Your task to perform on an android device: Open Google Maps and go to "Timeline" Image 0: 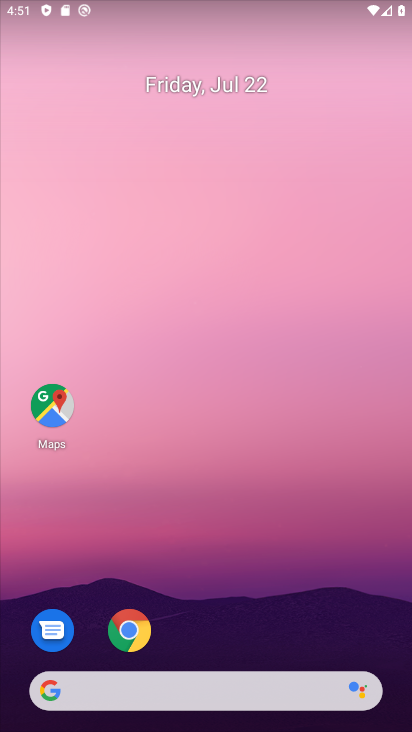
Step 0: click (171, 649)
Your task to perform on an android device: Open Google Maps and go to "Timeline" Image 1: 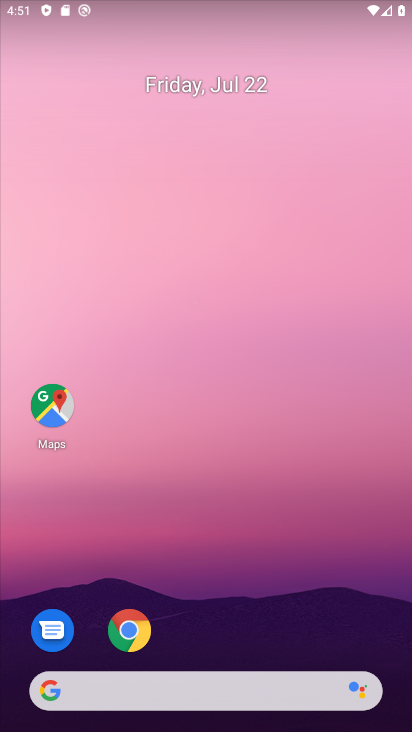
Step 1: click (51, 411)
Your task to perform on an android device: Open Google Maps and go to "Timeline" Image 2: 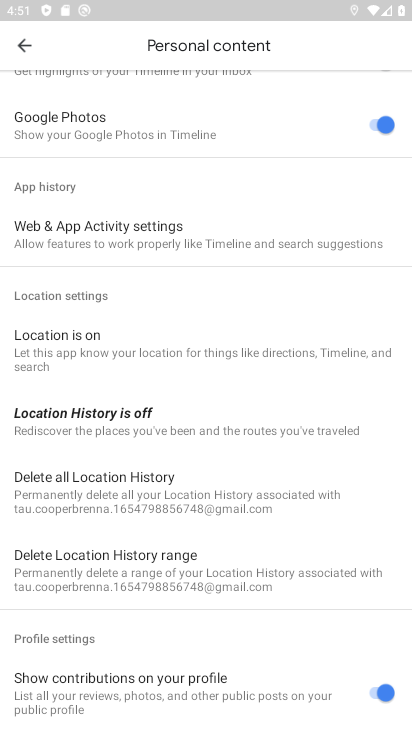
Step 2: task complete